Your task to perform on an android device: Open settings on Google Maps Image 0: 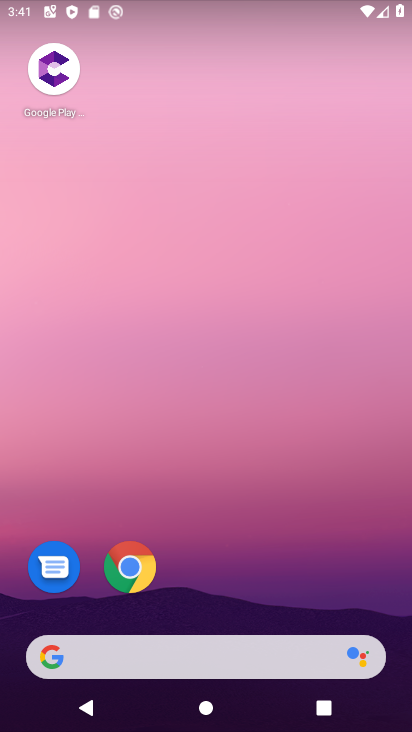
Step 0: drag from (190, 548) to (242, 58)
Your task to perform on an android device: Open settings on Google Maps Image 1: 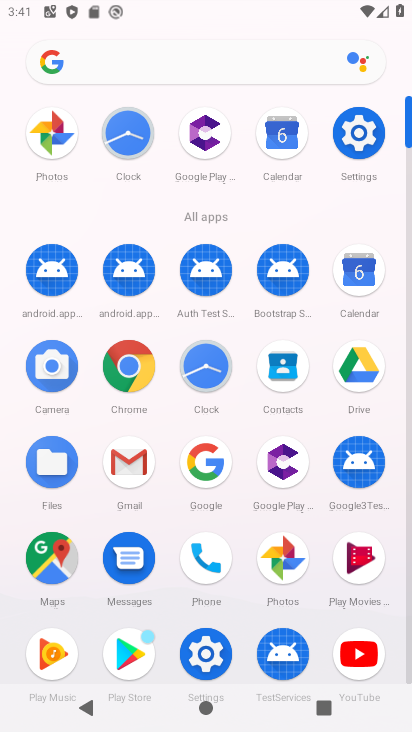
Step 1: click (48, 557)
Your task to perform on an android device: Open settings on Google Maps Image 2: 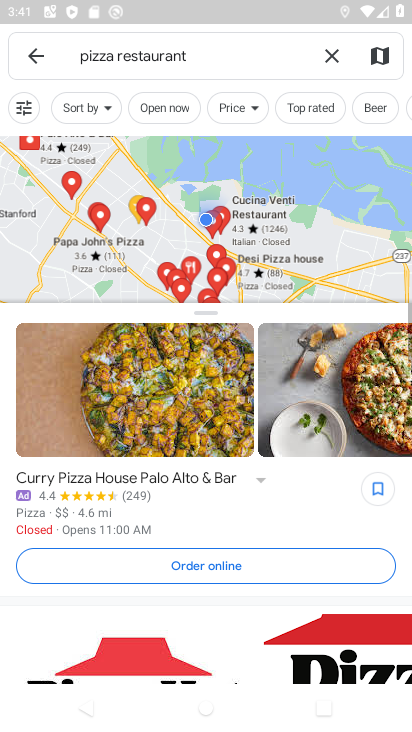
Step 2: click (37, 50)
Your task to perform on an android device: Open settings on Google Maps Image 3: 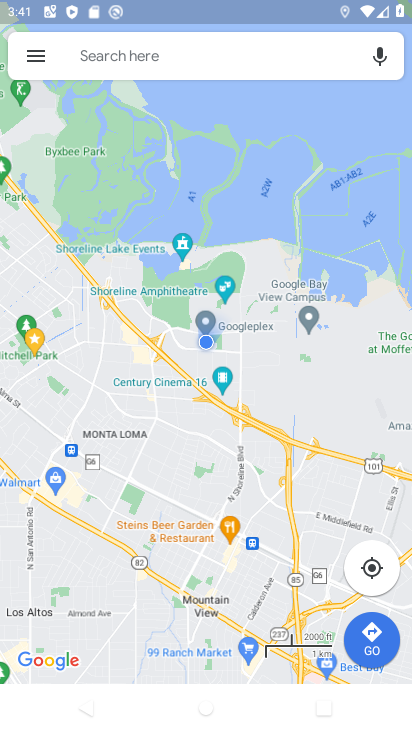
Step 3: click (37, 50)
Your task to perform on an android device: Open settings on Google Maps Image 4: 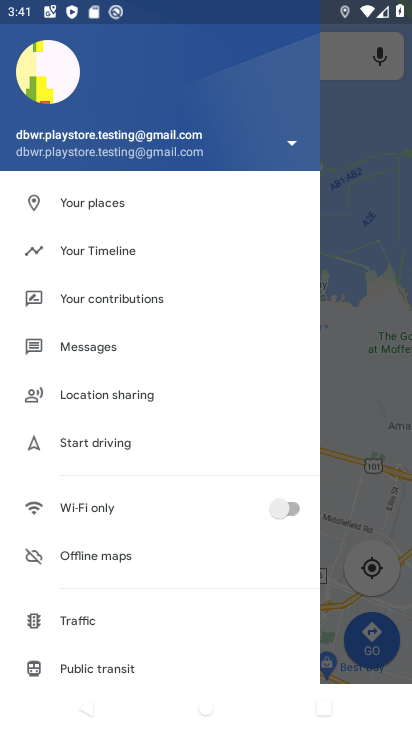
Step 4: drag from (86, 612) to (144, 218)
Your task to perform on an android device: Open settings on Google Maps Image 5: 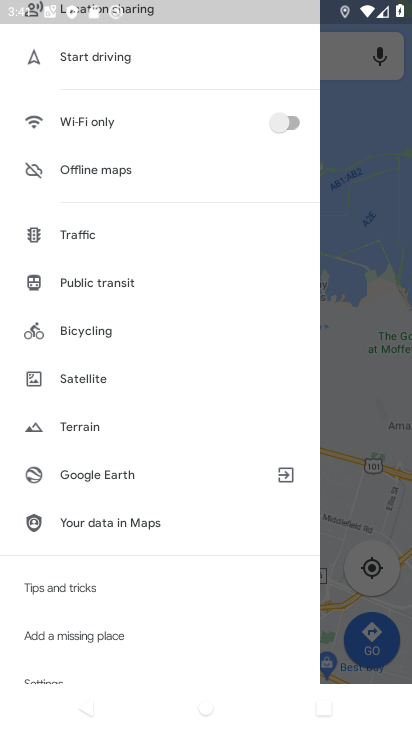
Step 5: drag from (99, 586) to (150, 155)
Your task to perform on an android device: Open settings on Google Maps Image 6: 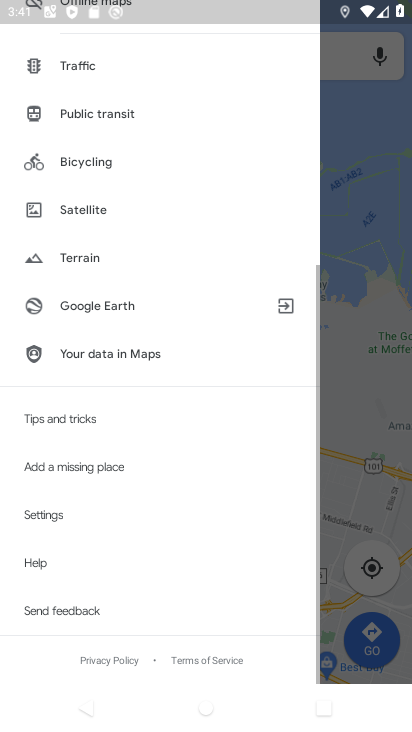
Step 6: click (44, 518)
Your task to perform on an android device: Open settings on Google Maps Image 7: 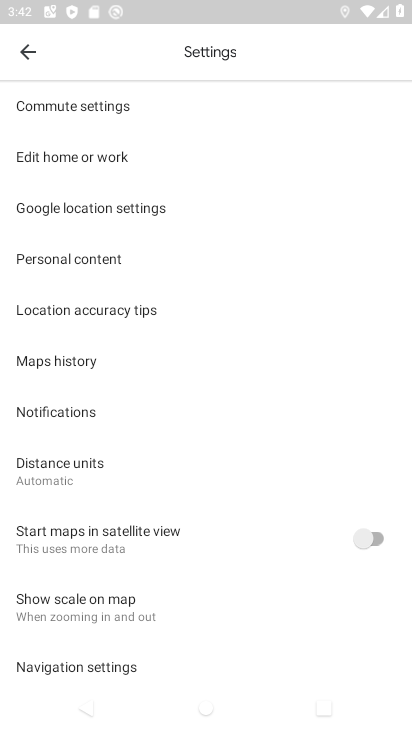
Step 7: task complete